Your task to perform on an android device: Open the calendar app, open the side menu, and click the "Day" option Image 0: 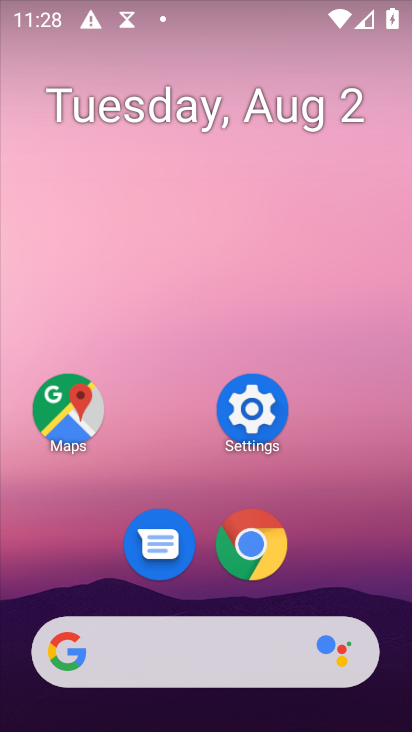
Step 0: drag from (191, 632) to (275, 8)
Your task to perform on an android device: Open the calendar app, open the side menu, and click the "Day" option Image 1: 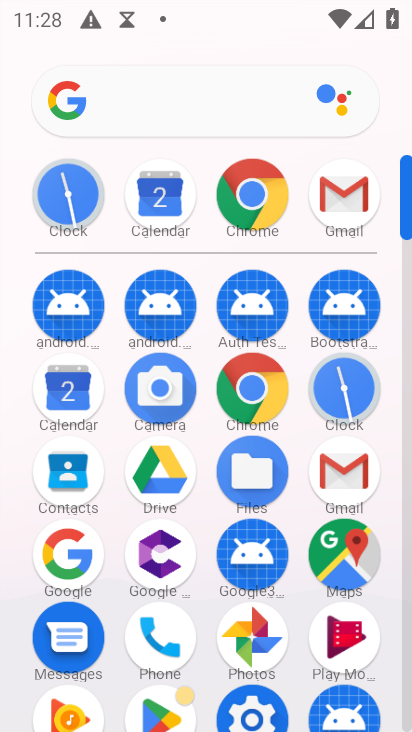
Step 1: click (63, 395)
Your task to perform on an android device: Open the calendar app, open the side menu, and click the "Day" option Image 2: 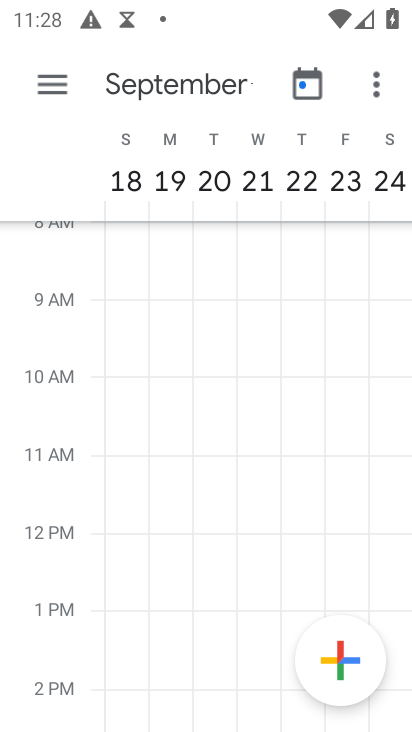
Step 2: click (48, 86)
Your task to perform on an android device: Open the calendar app, open the side menu, and click the "Day" option Image 3: 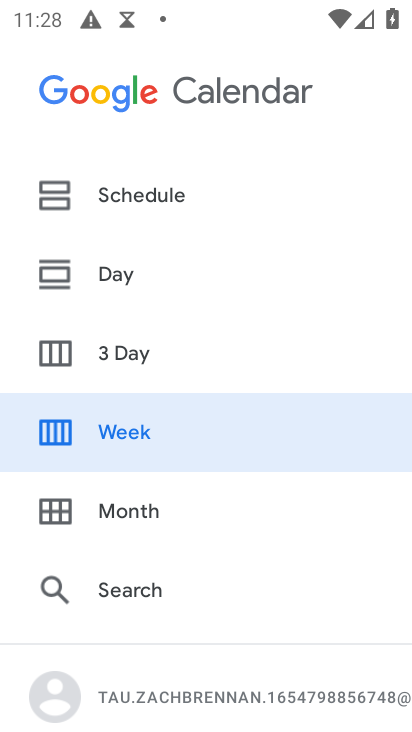
Step 3: click (125, 274)
Your task to perform on an android device: Open the calendar app, open the side menu, and click the "Day" option Image 4: 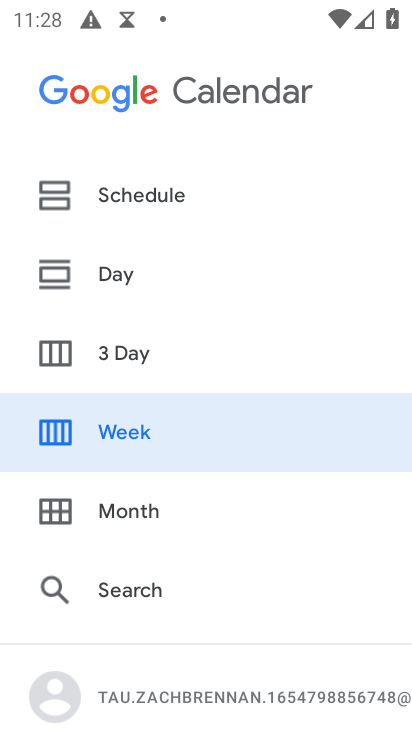
Step 4: click (113, 266)
Your task to perform on an android device: Open the calendar app, open the side menu, and click the "Day" option Image 5: 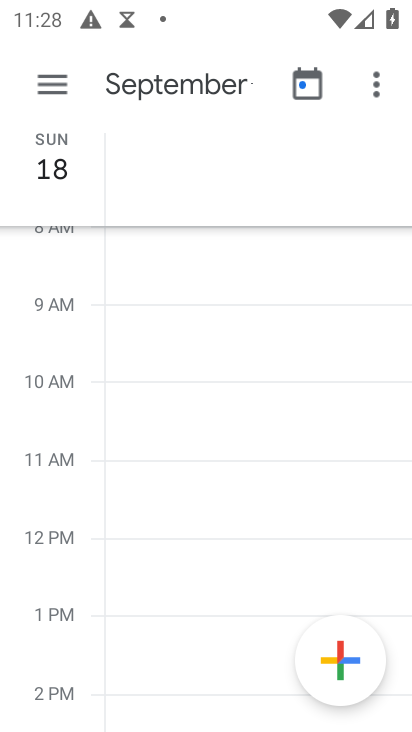
Step 5: click (155, 85)
Your task to perform on an android device: Open the calendar app, open the side menu, and click the "Day" option Image 6: 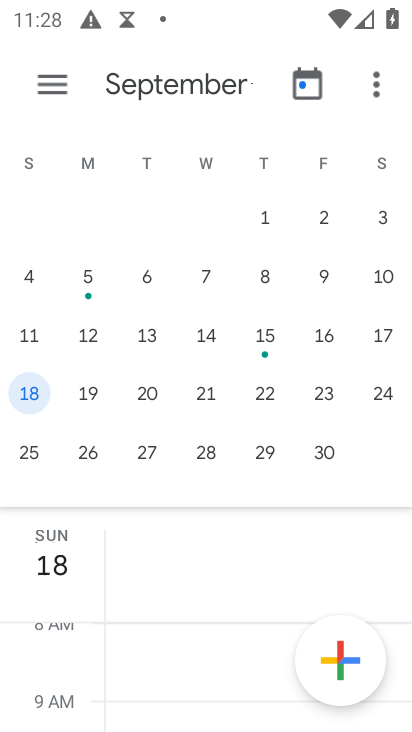
Step 6: task complete